Your task to perform on an android device: Do I have any events today? Image 0: 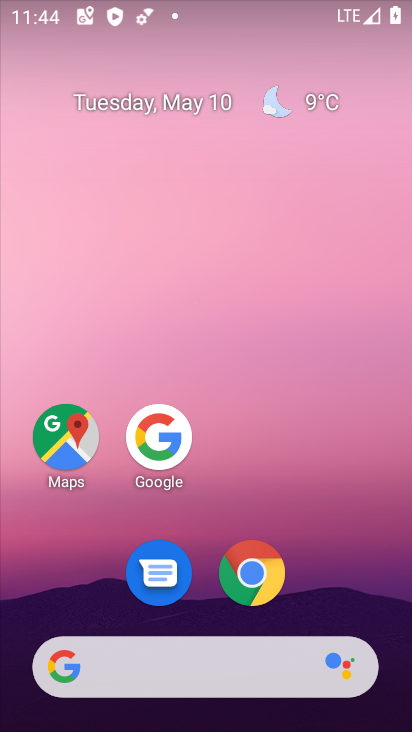
Step 0: drag from (190, 673) to (298, 192)
Your task to perform on an android device: Do I have any events today? Image 1: 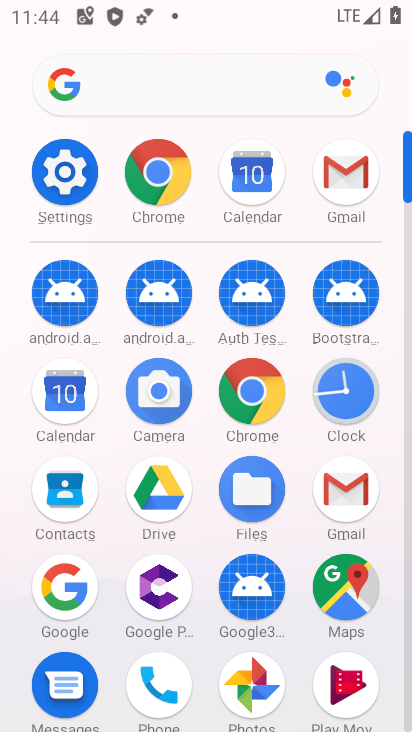
Step 1: click (76, 412)
Your task to perform on an android device: Do I have any events today? Image 2: 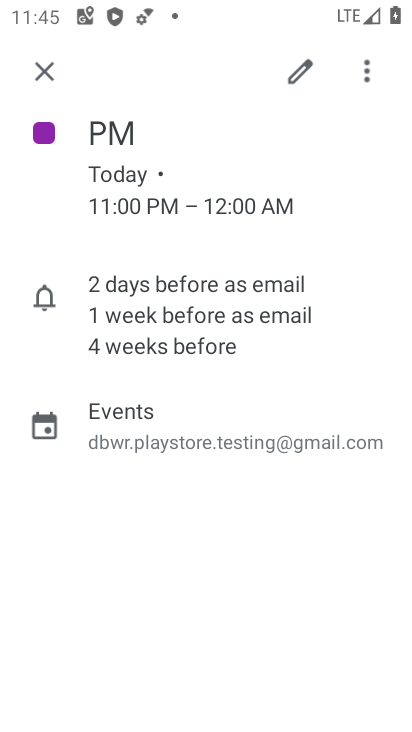
Step 2: task complete